Your task to perform on an android device: Open calendar and show me the fourth week of next month Image 0: 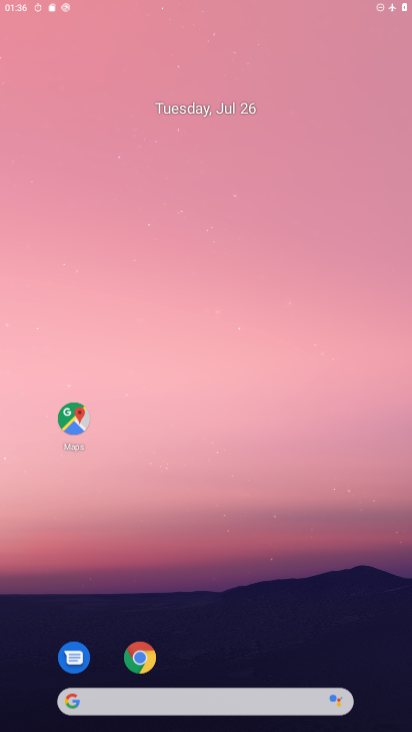
Step 0: click (201, 158)
Your task to perform on an android device: Open calendar and show me the fourth week of next month Image 1: 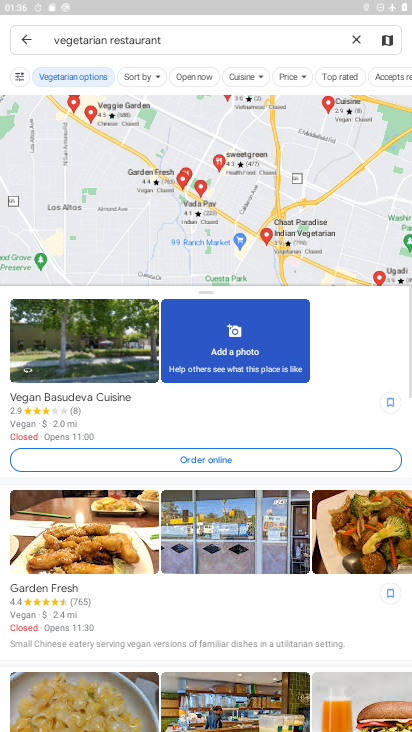
Step 1: press home button
Your task to perform on an android device: Open calendar and show me the fourth week of next month Image 2: 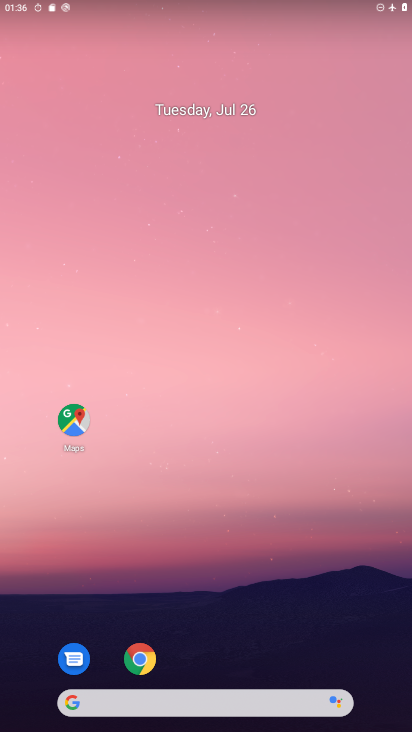
Step 2: drag from (86, 586) to (371, 14)
Your task to perform on an android device: Open calendar and show me the fourth week of next month Image 3: 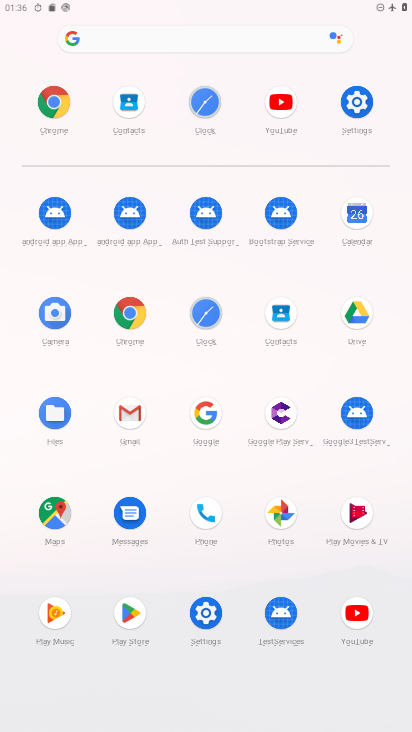
Step 3: click (347, 215)
Your task to perform on an android device: Open calendar and show me the fourth week of next month Image 4: 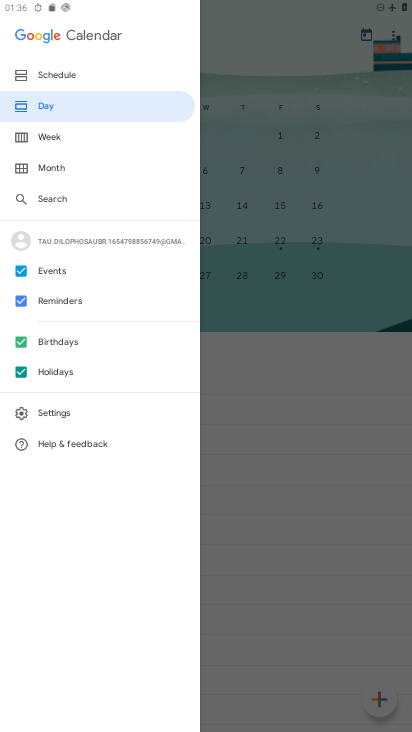
Step 4: click (283, 369)
Your task to perform on an android device: Open calendar and show me the fourth week of next month Image 5: 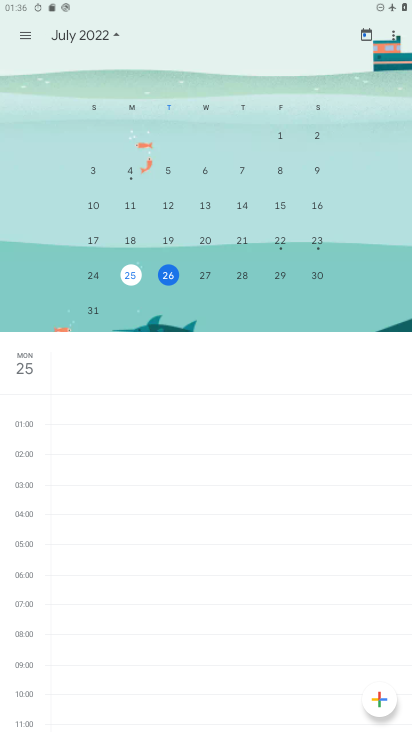
Step 5: drag from (365, 157) to (15, 206)
Your task to perform on an android device: Open calendar and show me the fourth week of next month Image 6: 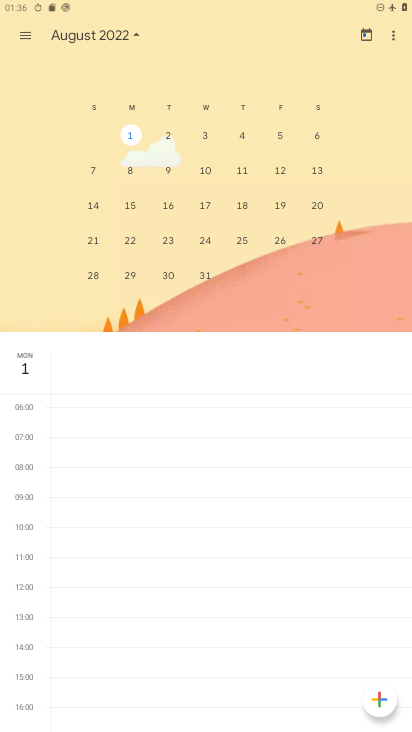
Step 6: click (129, 234)
Your task to perform on an android device: Open calendar and show me the fourth week of next month Image 7: 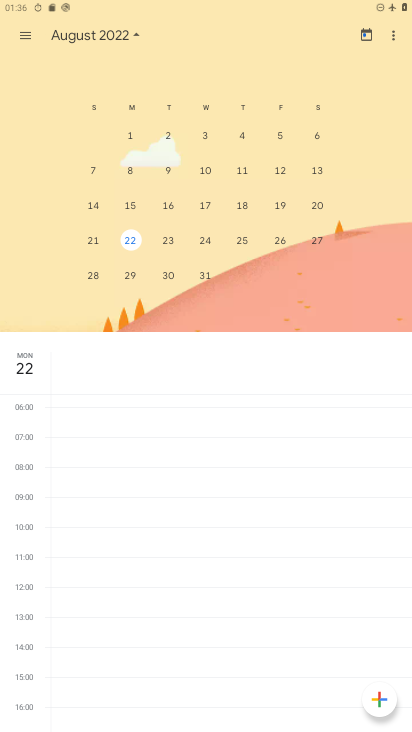
Step 7: task complete